Your task to perform on an android device: Go to internet settings Image 0: 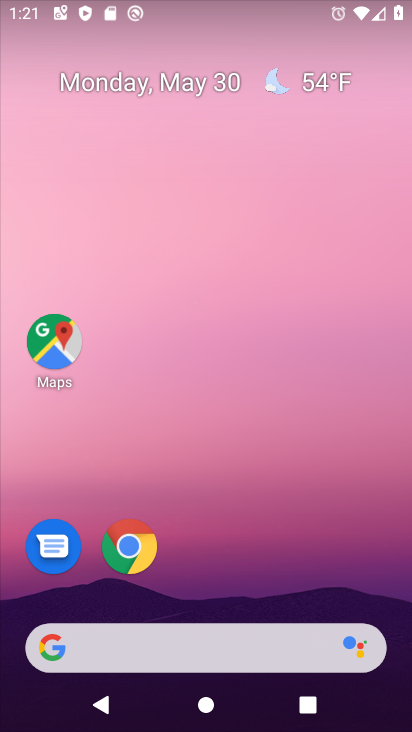
Step 0: drag from (285, 543) to (282, 106)
Your task to perform on an android device: Go to internet settings Image 1: 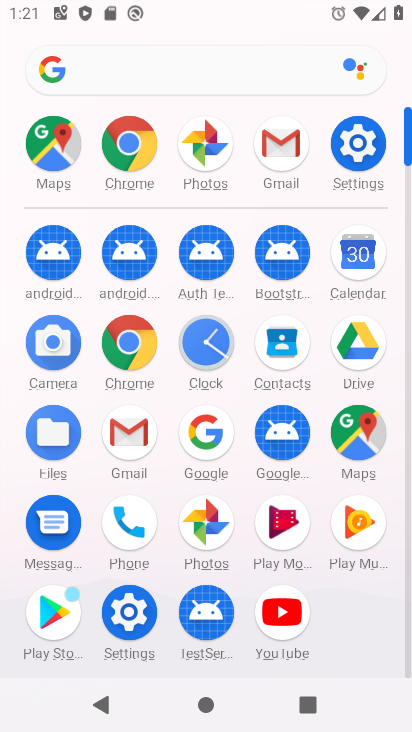
Step 1: click (353, 166)
Your task to perform on an android device: Go to internet settings Image 2: 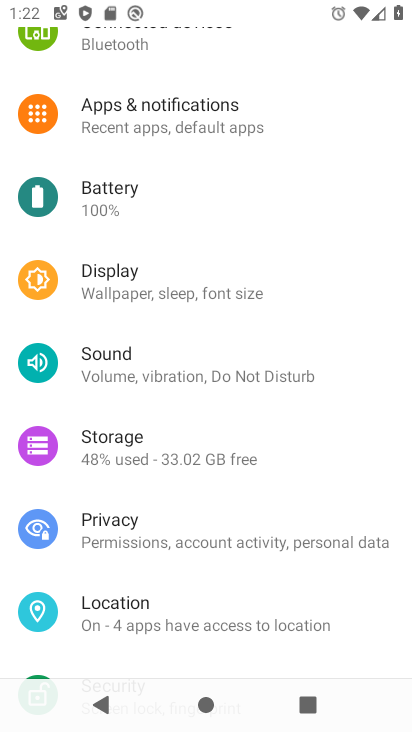
Step 2: drag from (266, 82) to (238, 434)
Your task to perform on an android device: Go to internet settings Image 3: 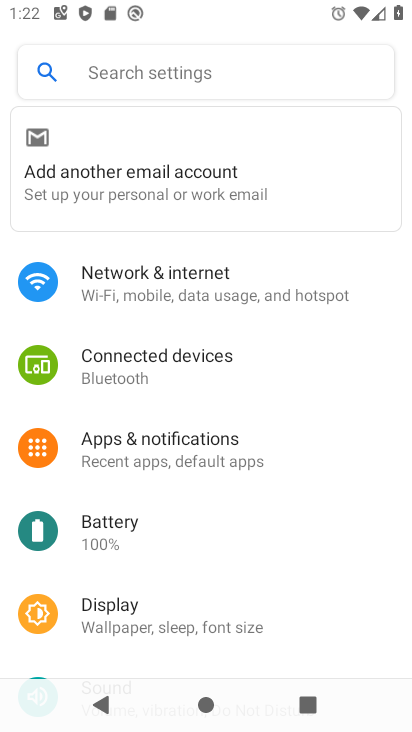
Step 3: click (150, 286)
Your task to perform on an android device: Go to internet settings Image 4: 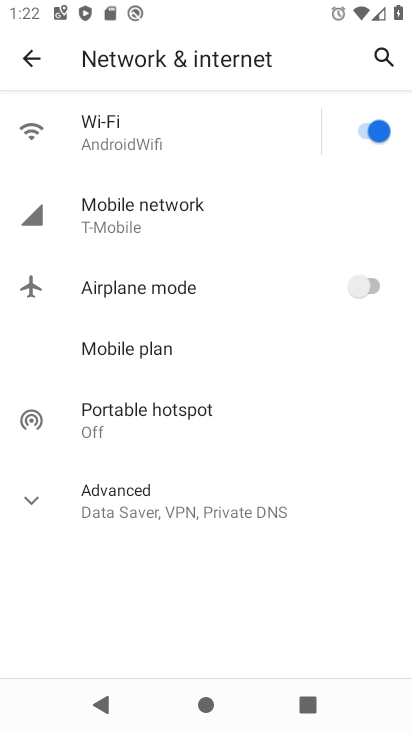
Step 4: task complete